Your task to perform on an android device: turn on airplane mode Image 0: 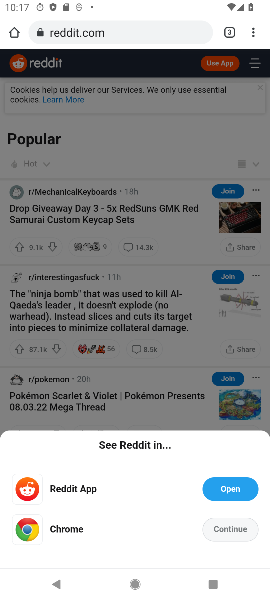
Step 0: press home button
Your task to perform on an android device: turn on airplane mode Image 1: 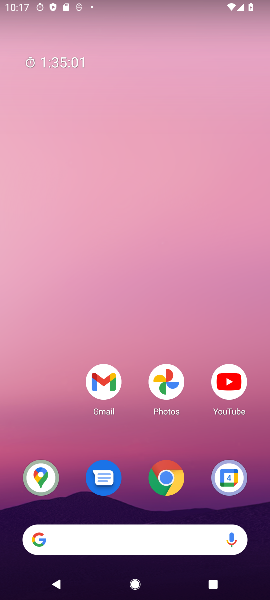
Step 1: drag from (185, 5) to (88, 442)
Your task to perform on an android device: turn on airplane mode Image 2: 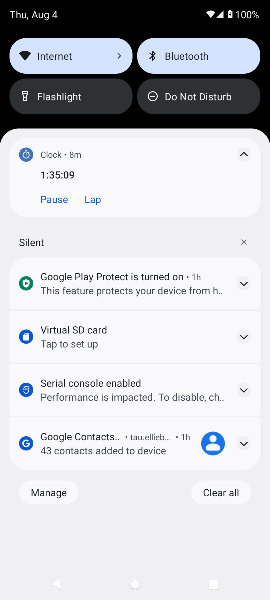
Step 2: drag from (127, 107) to (43, 559)
Your task to perform on an android device: turn on airplane mode Image 3: 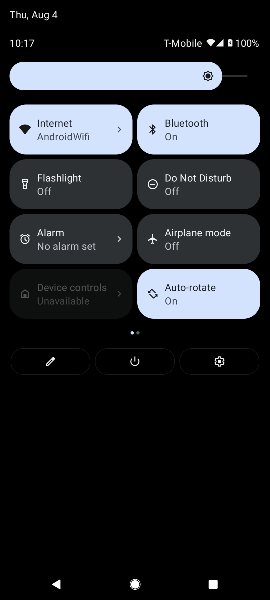
Step 3: click (193, 243)
Your task to perform on an android device: turn on airplane mode Image 4: 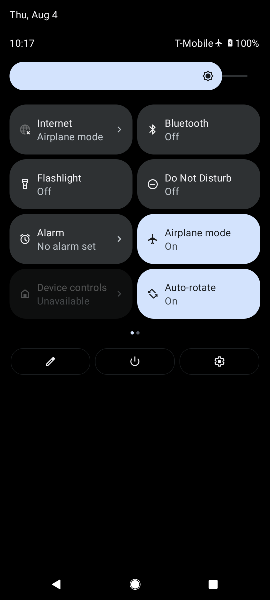
Step 4: task complete